Your task to perform on an android device: When is my next appointment? Image 0: 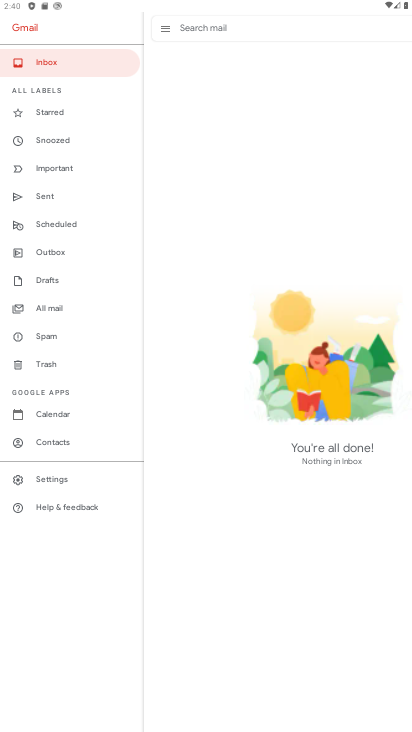
Step 0: press home button
Your task to perform on an android device: When is my next appointment? Image 1: 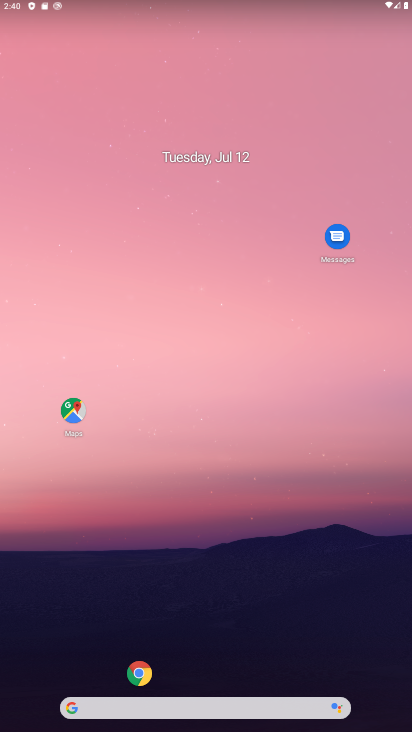
Step 1: drag from (7, 697) to (338, 40)
Your task to perform on an android device: When is my next appointment? Image 2: 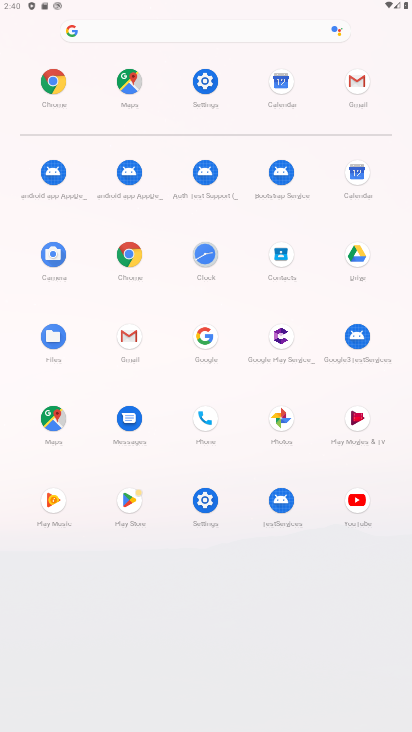
Step 2: click (345, 173)
Your task to perform on an android device: When is my next appointment? Image 3: 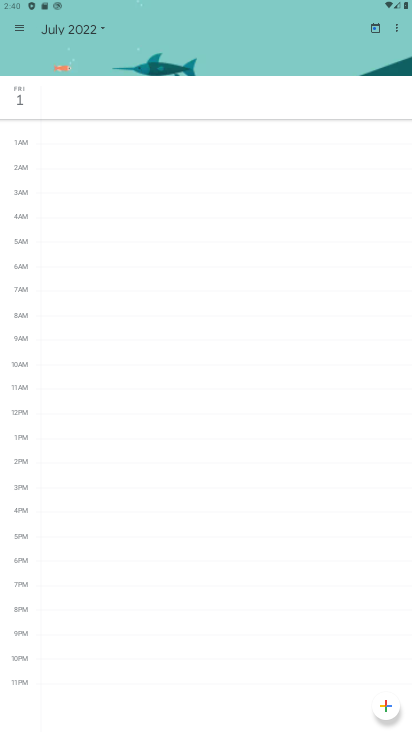
Step 3: click (26, 29)
Your task to perform on an android device: When is my next appointment? Image 4: 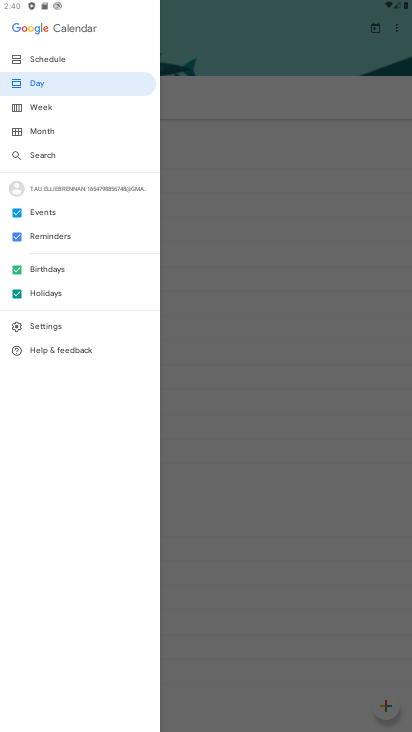
Step 4: click (39, 125)
Your task to perform on an android device: When is my next appointment? Image 5: 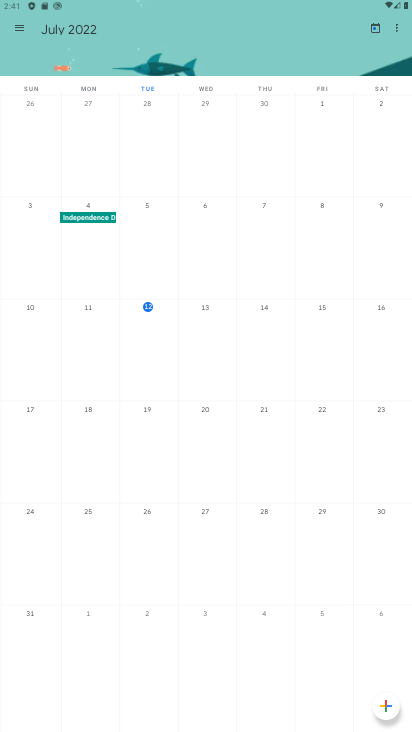
Step 5: task complete